Your task to perform on an android device: Open Google Chrome and click the shortcut for Amazon.com Image 0: 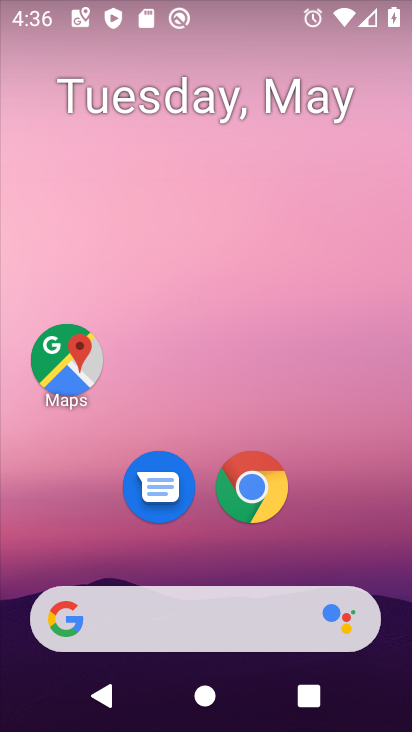
Step 0: click (255, 476)
Your task to perform on an android device: Open Google Chrome and click the shortcut for Amazon.com Image 1: 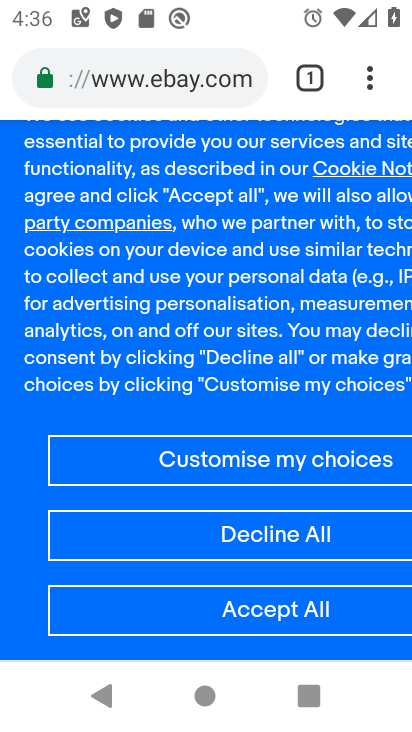
Step 1: drag from (378, 77) to (171, 157)
Your task to perform on an android device: Open Google Chrome and click the shortcut for Amazon.com Image 2: 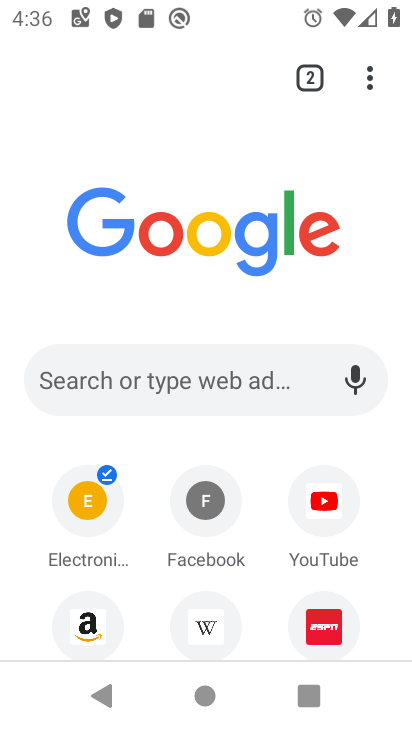
Step 2: click (101, 616)
Your task to perform on an android device: Open Google Chrome and click the shortcut for Amazon.com Image 3: 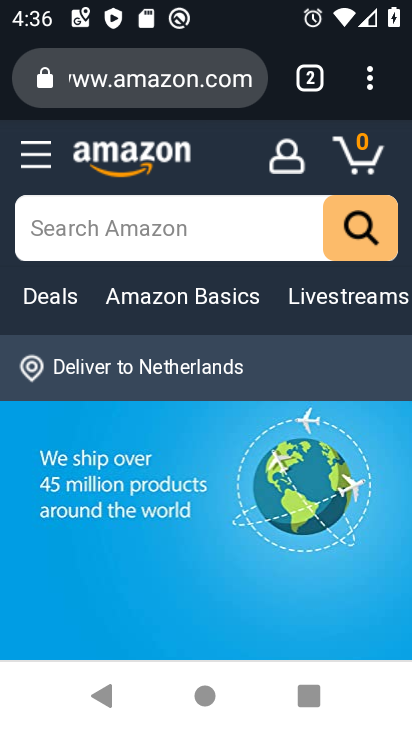
Step 3: task complete